Your task to perform on an android device: Search for "razer naga" on amazon, select the first entry, and add it to the cart. Image 0: 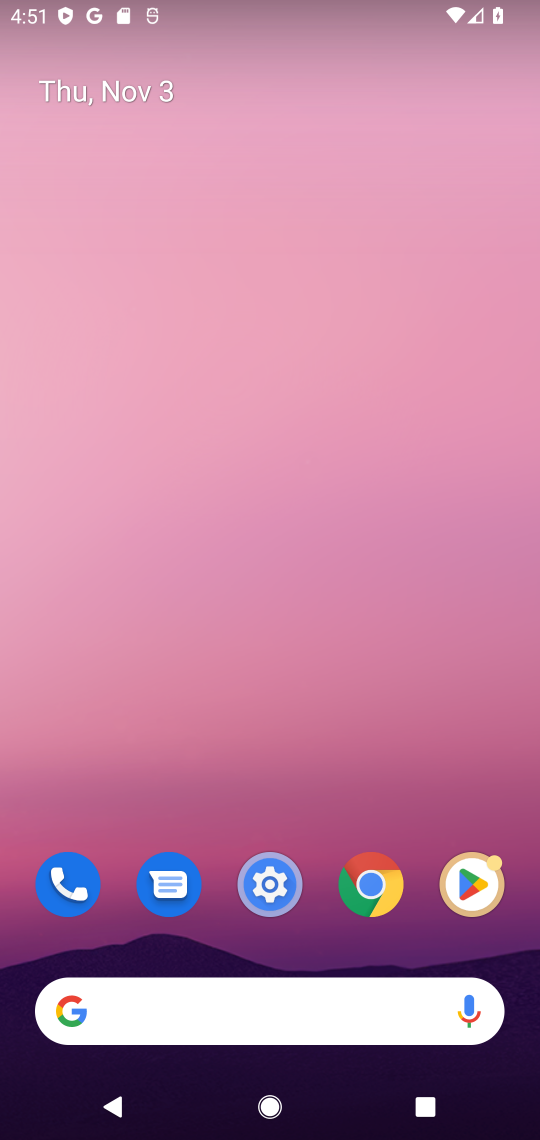
Step 0: press home button
Your task to perform on an android device: Search for "razer naga" on amazon, select the first entry, and add it to the cart. Image 1: 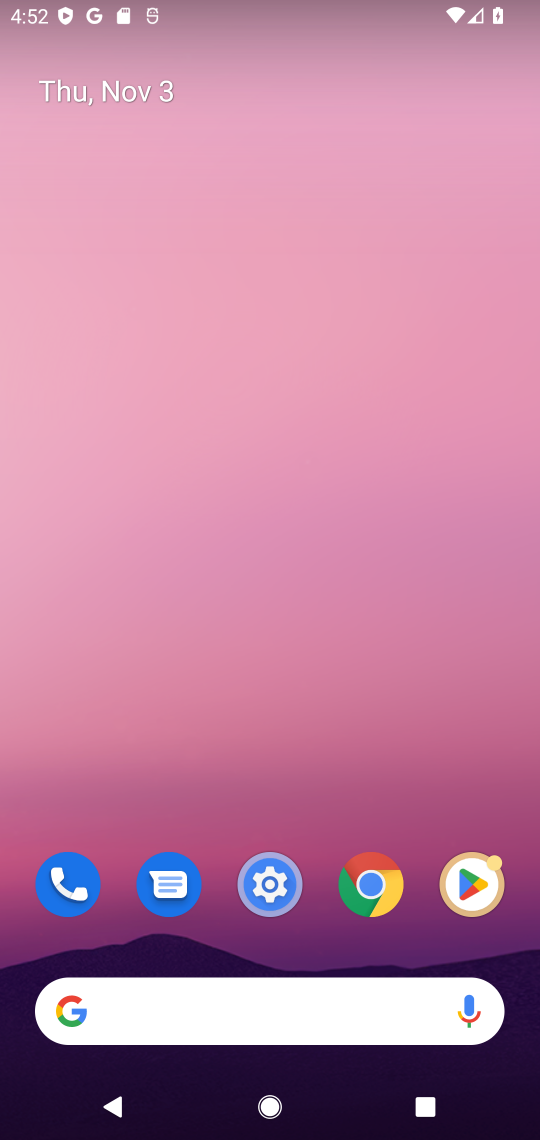
Step 1: click (100, 1009)
Your task to perform on an android device: Search for "razer naga" on amazon, select the first entry, and add it to the cart. Image 2: 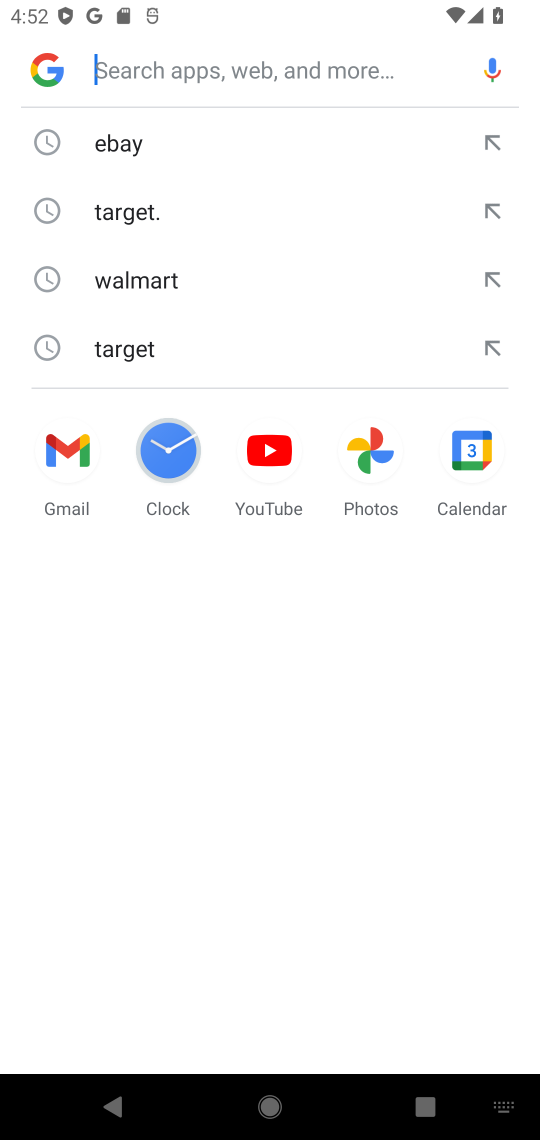
Step 2: type "amazon"
Your task to perform on an android device: Search for "razer naga" on amazon, select the first entry, and add it to the cart. Image 3: 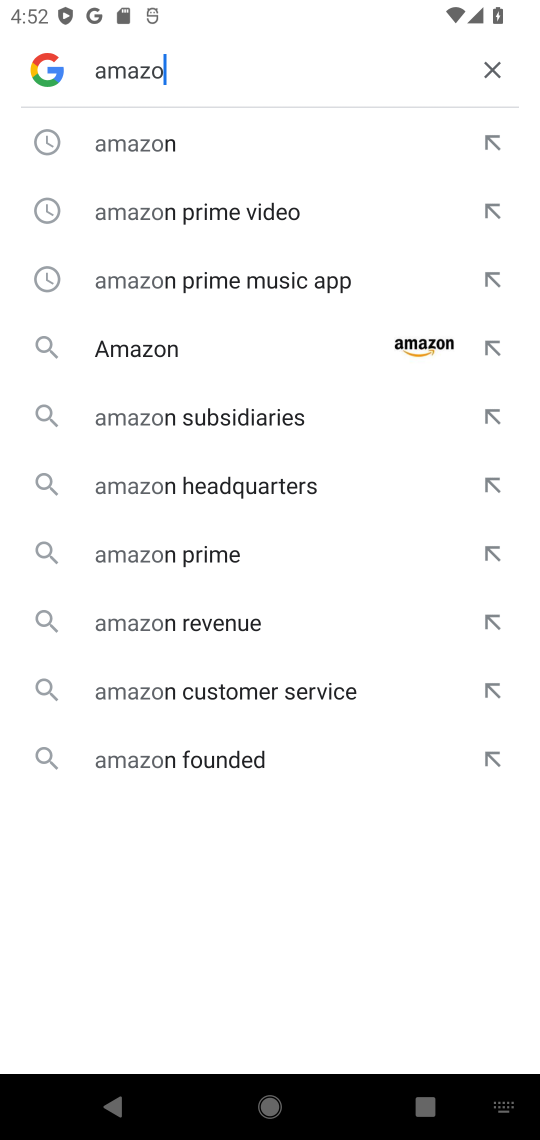
Step 3: press enter
Your task to perform on an android device: Search for "razer naga" on amazon, select the first entry, and add it to the cart. Image 4: 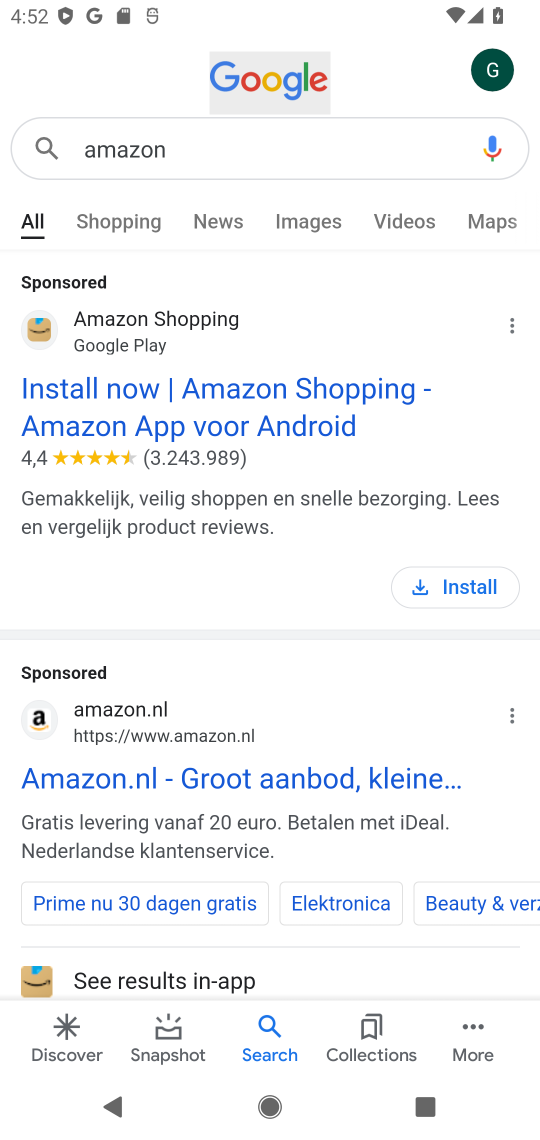
Step 4: drag from (361, 922) to (379, 455)
Your task to perform on an android device: Search for "razer naga" on amazon, select the first entry, and add it to the cart. Image 5: 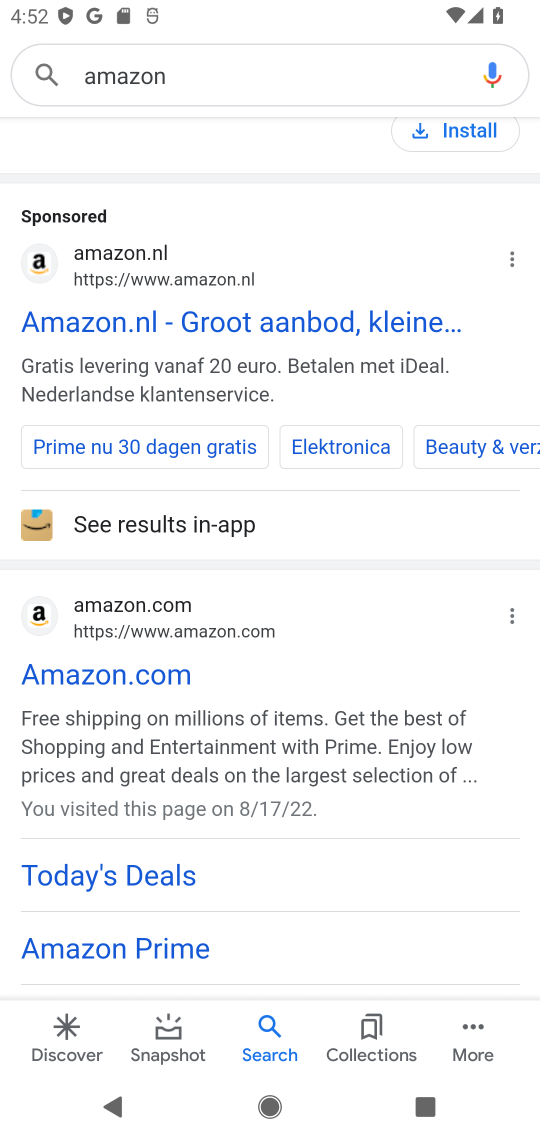
Step 5: drag from (300, 852) to (300, 461)
Your task to perform on an android device: Search for "razer naga" on amazon, select the first entry, and add it to the cart. Image 6: 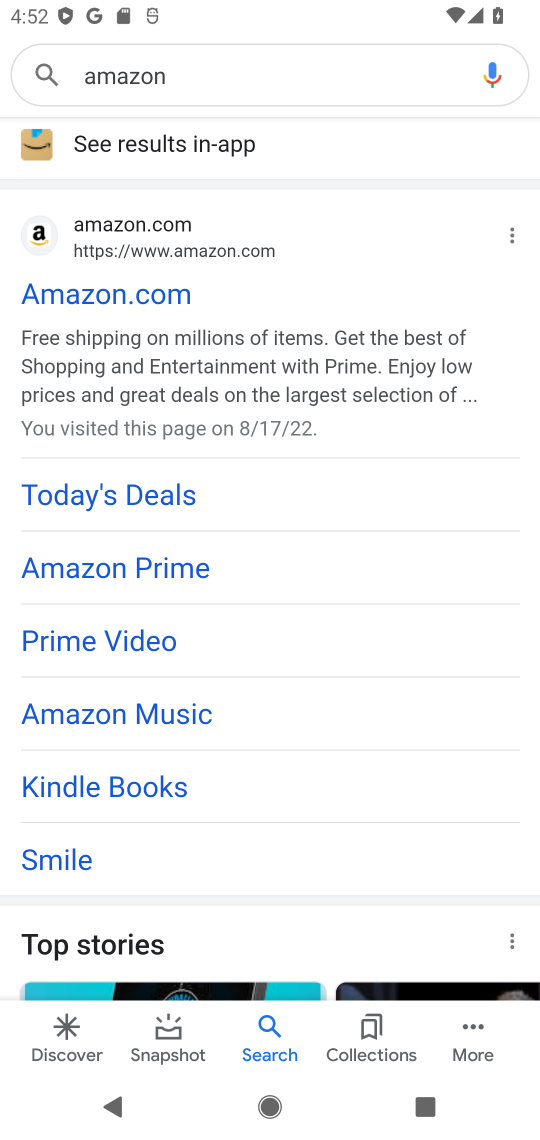
Step 6: click (155, 288)
Your task to perform on an android device: Search for "razer naga" on amazon, select the first entry, and add it to the cart. Image 7: 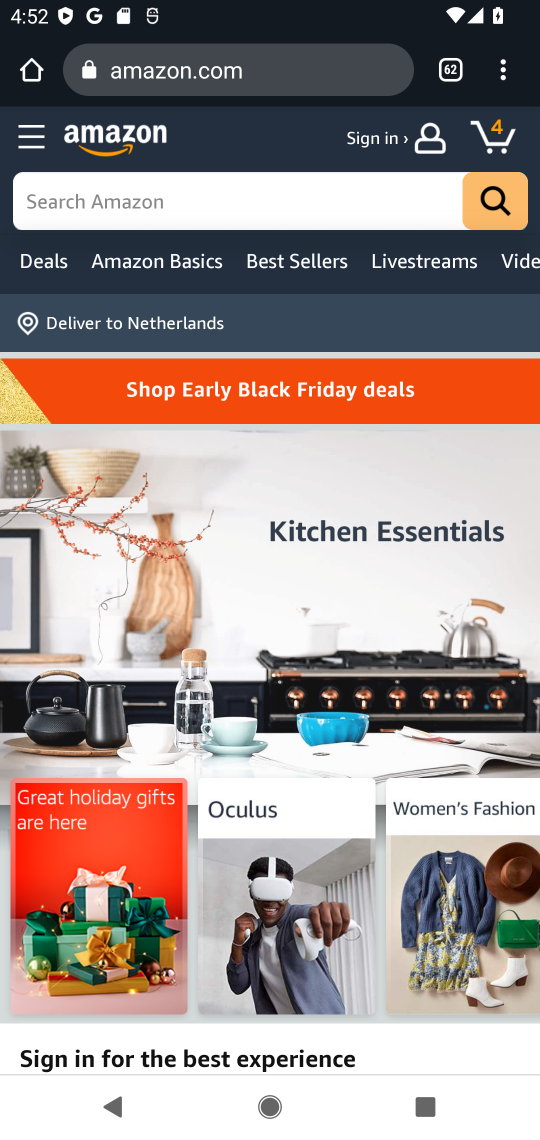
Step 7: click (59, 202)
Your task to perform on an android device: Search for "razer naga" on amazon, select the first entry, and add it to the cart. Image 8: 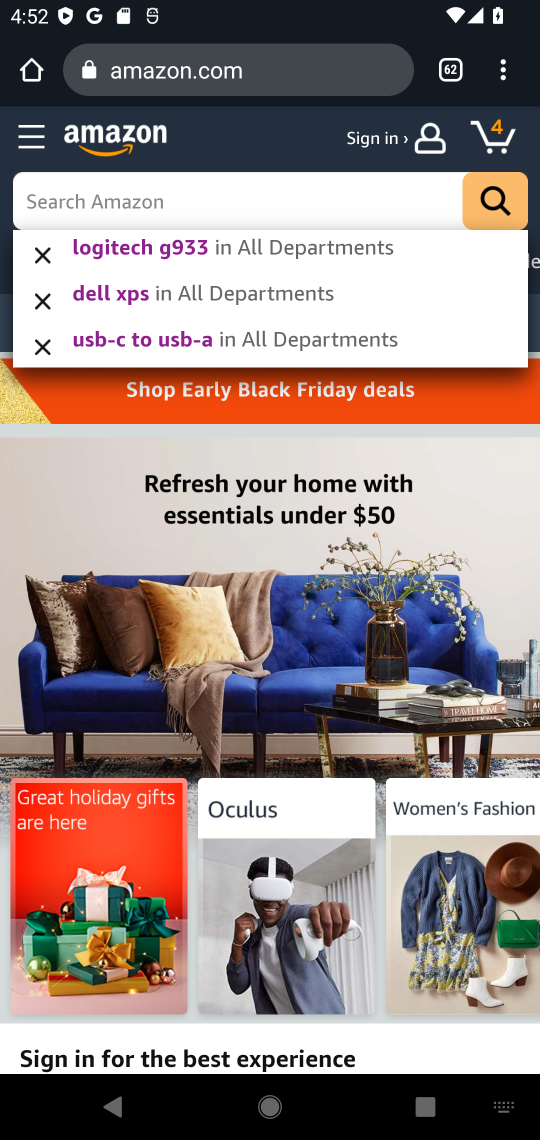
Step 8: type "razer naga"
Your task to perform on an android device: Search for "razer naga" on amazon, select the first entry, and add it to the cart. Image 9: 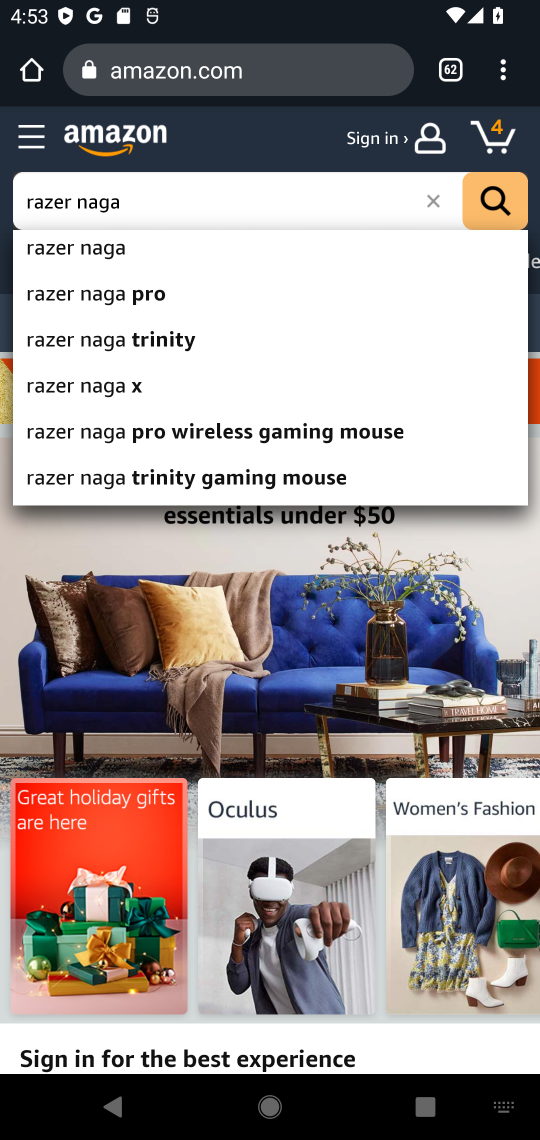
Step 9: click (488, 194)
Your task to perform on an android device: Search for "razer naga" on amazon, select the first entry, and add it to the cart. Image 10: 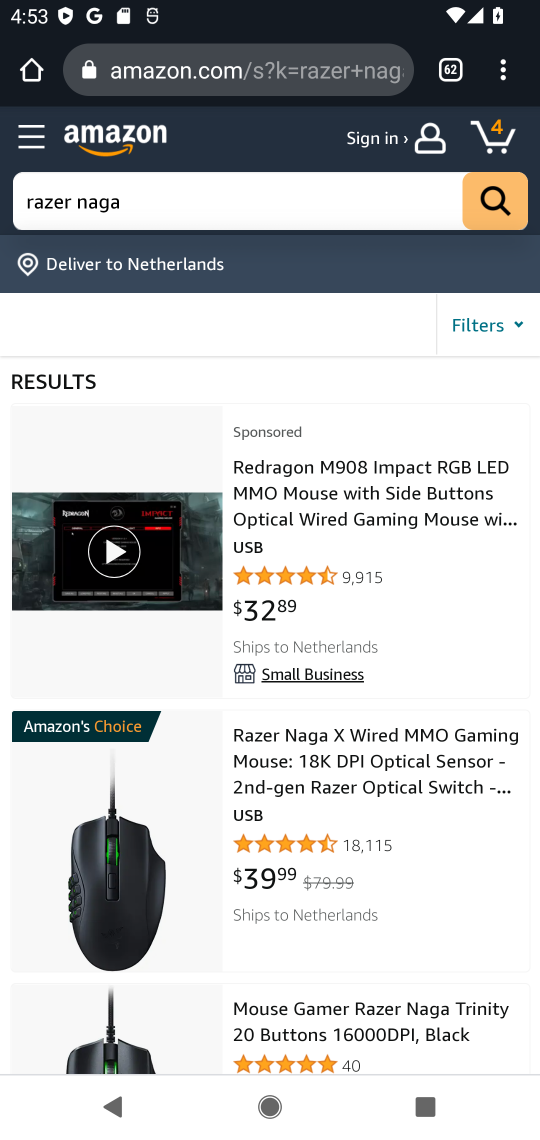
Step 10: drag from (309, 882) to (360, 547)
Your task to perform on an android device: Search for "razer naga" on amazon, select the first entry, and add it to the cart. Image 11: 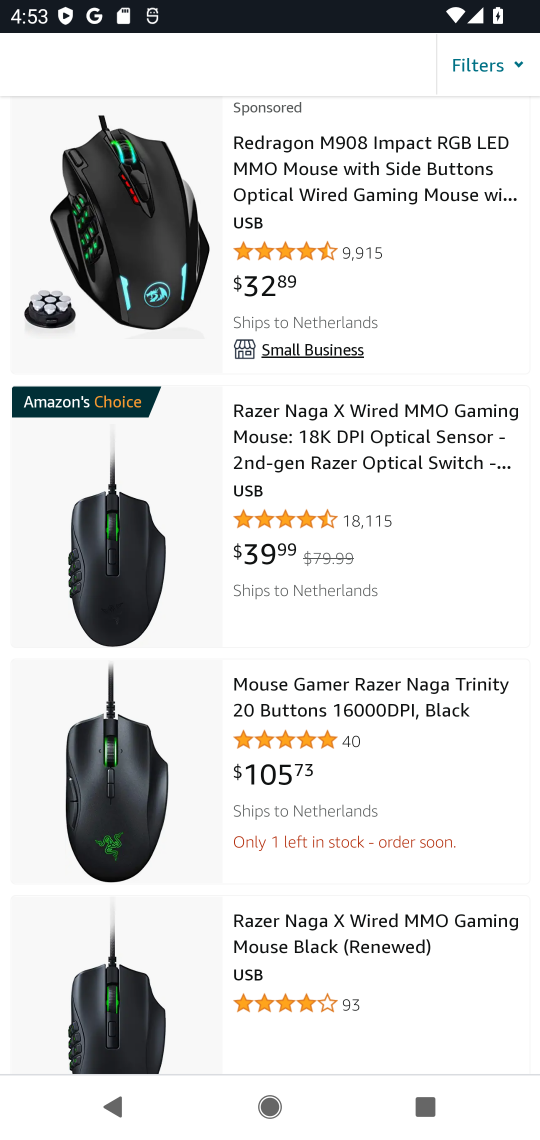
Step 11: drag from (389, 796) to (438, 551)
Your task to perform on an android device: Search for "razer naga" on amazon, select the first entry, and add it to the cart. Image 12: 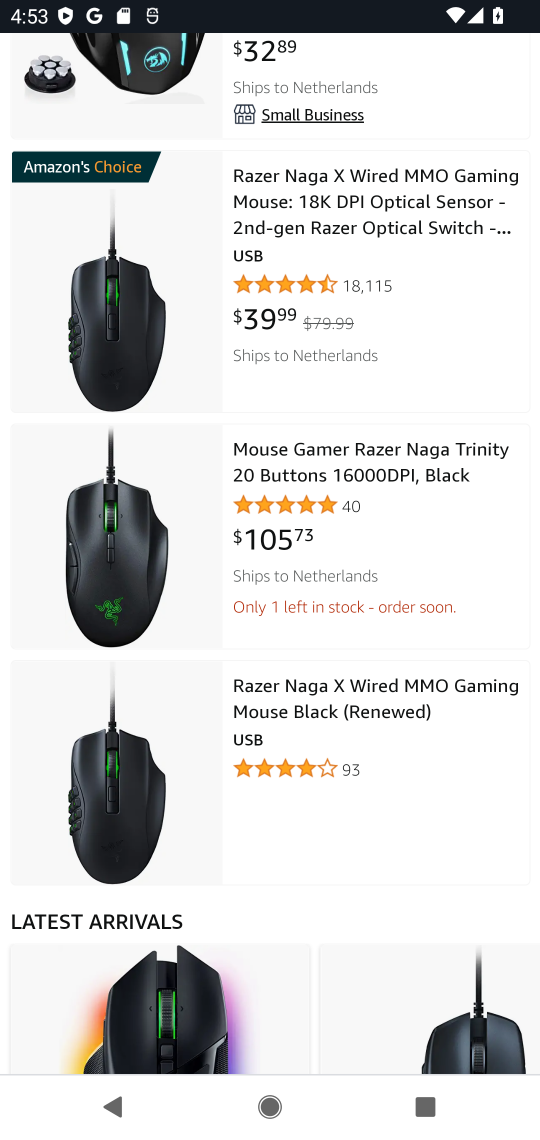
Step 12: drag from (431, 274) to (379, 934)
Your task to perform on an android device: Search for "razer naga" on amazon, select the first entry, and add it to the cart. Image 13: 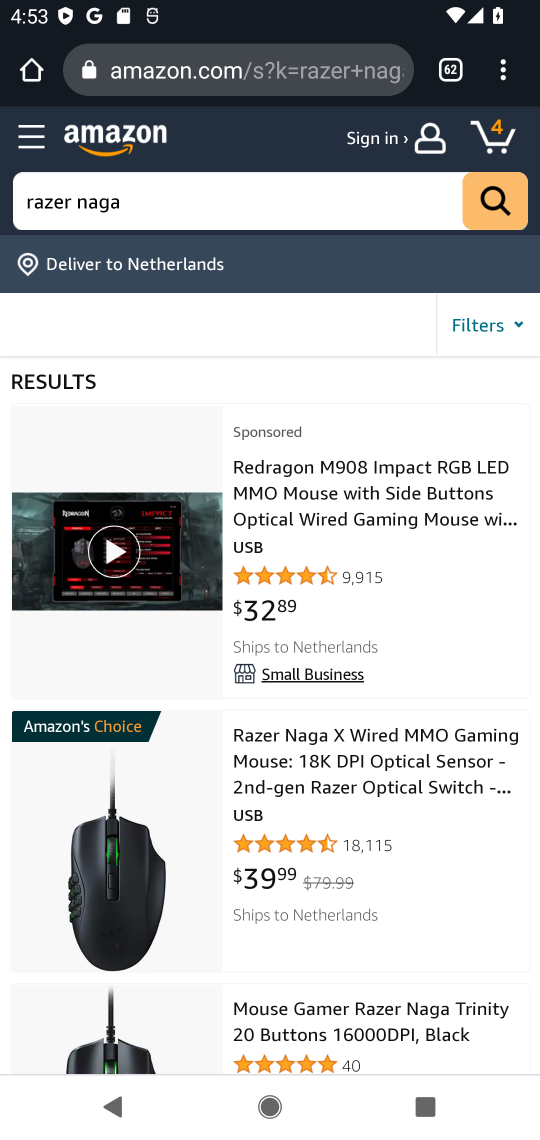
Step 13: click (358, 758)
Your task to perform on an android device: Search for "razer naga" on amazon, select the first entry, and add it to the cart. Image 14: 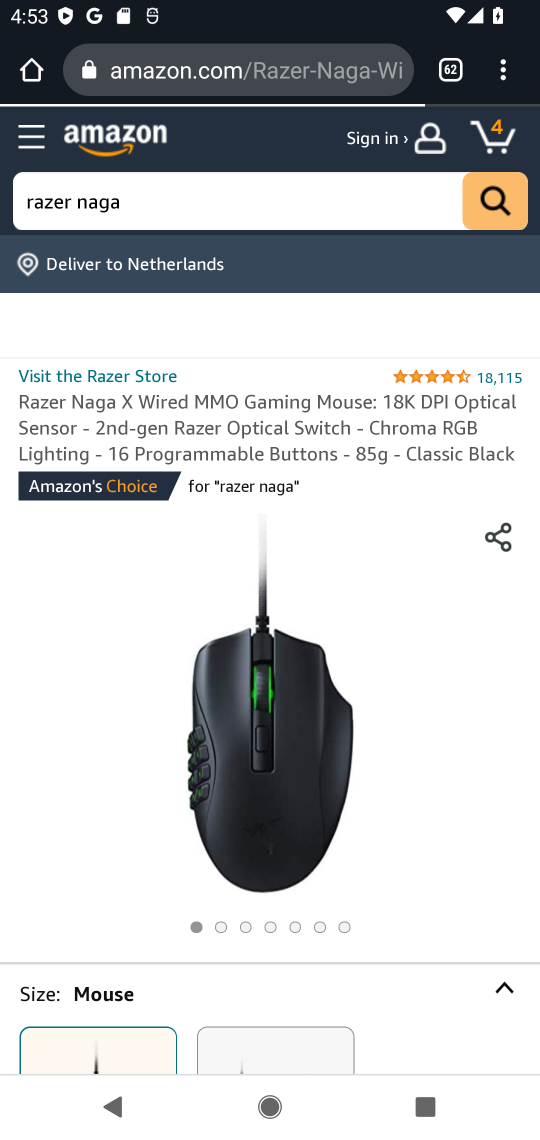
Step 14: drag from (352, 852) to (384, 425)
Your task to perform on an android device: Search for "razer naga" on amazon, select the first entry, and add it to the cart. Image 15: 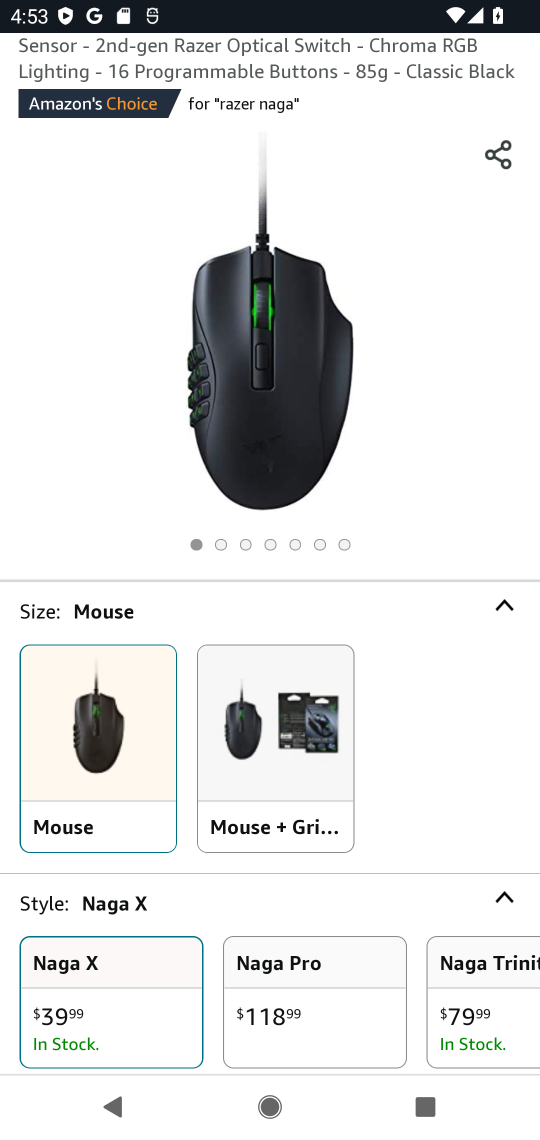
Step 15: drag from (349, 941) to (412, 505)
Your task to perform on an android device: Search for "razer naga" on amazon, select the first entry, and add it to the cart. Image 16: 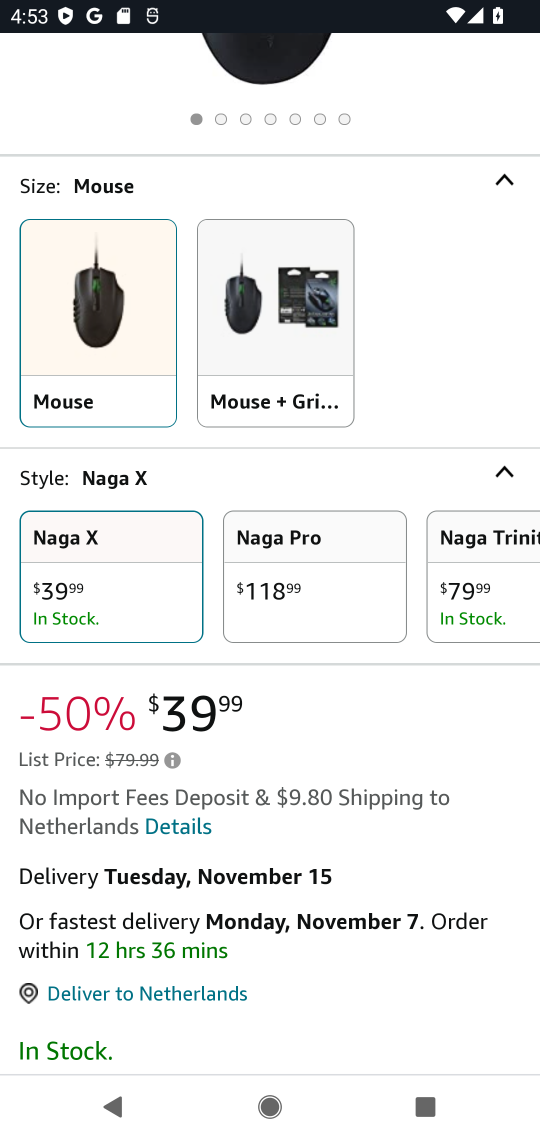
Step 16: drag from (333, 996) to (337, 511)
Your task to perform on an android device: Search for "razer naga" on amazon, select the first entry, and add it to the cart. Image 17: 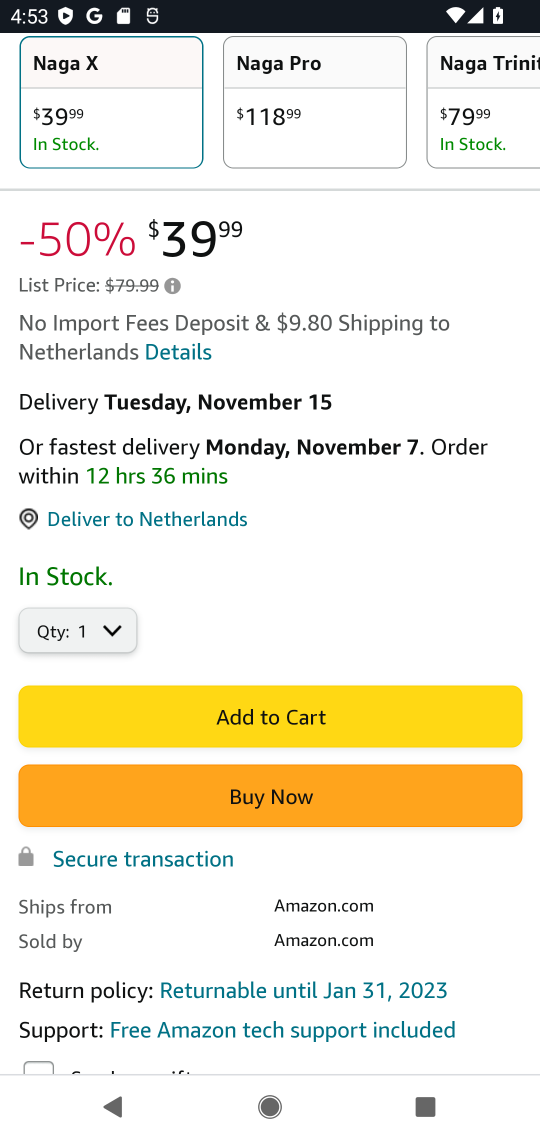
Step 17: click (238, 715)
Your task to perform on an android device: Search for "razer naga" on amazon, select the first entry, and add it to the cart. Image 18: 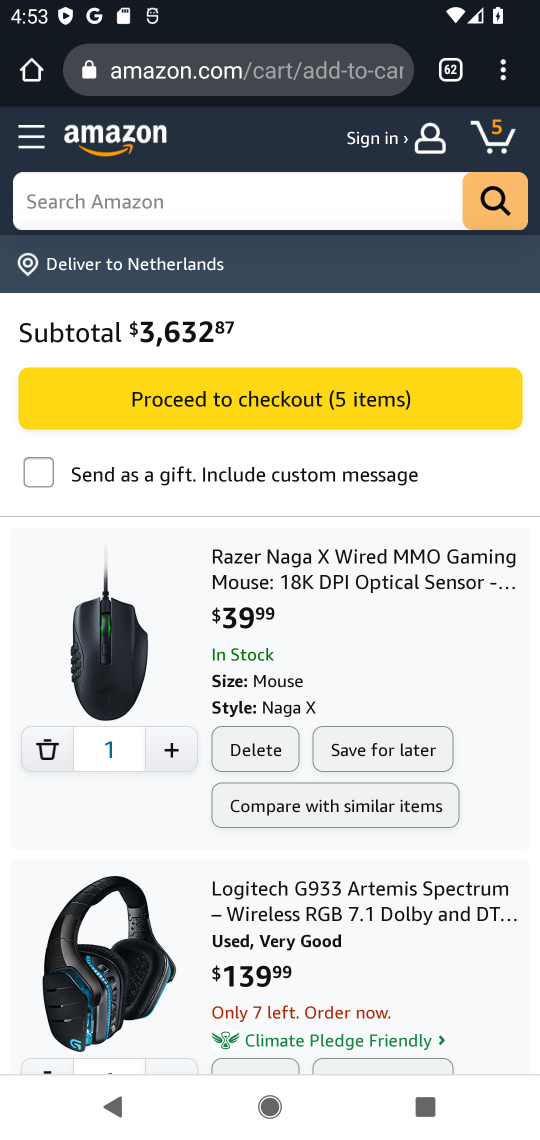
Step 18: task complete